Your task to perform on an android device: Empty the shopping cart on walmart.com. Add "razer blade" to the cart on walmart.com, then select checkout. Image 0: 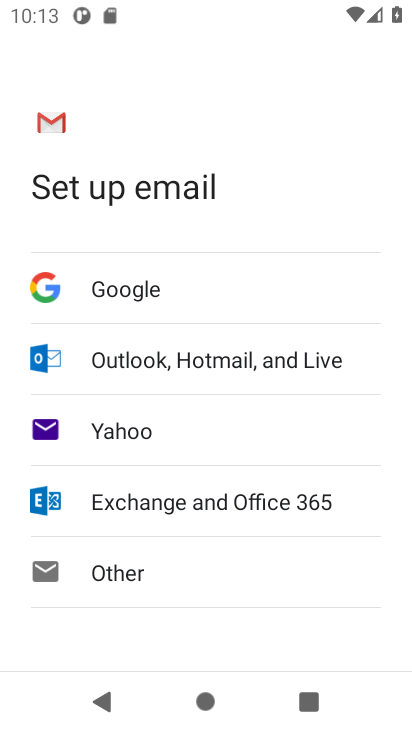
Step 0: press home button
Your task to perform on an android device: Empty the shopping cart on walmart.com. Add "razer blade" to the cart on walmart.com, then select checkout. Image 1: 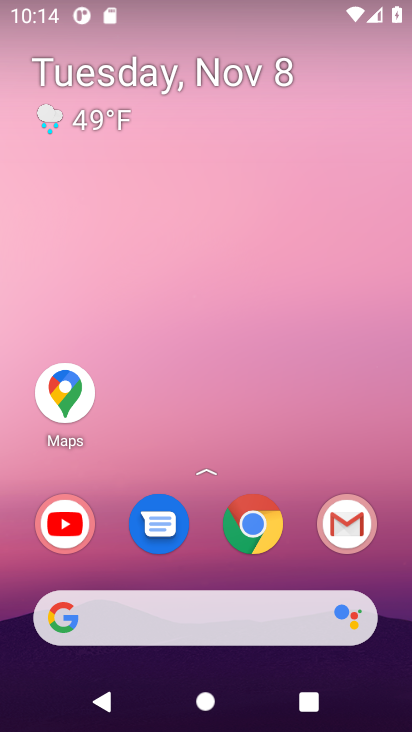
Step 1: click (250, 538)
Your task to perform on an android device: Empty the shopping cart on walmart.com. Add "razer blade" to the cart on walmart.com, then select checkout. Image 2: 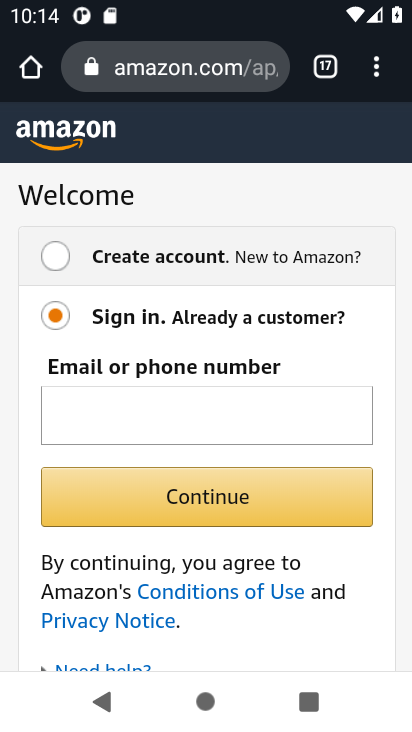
Step 2: click (195, 76)
Your task to perform on an android device: Empty the shopping cart on walmart.com. Add "razer blade" to the cart on walmart.com, then select checkout. Image 3: 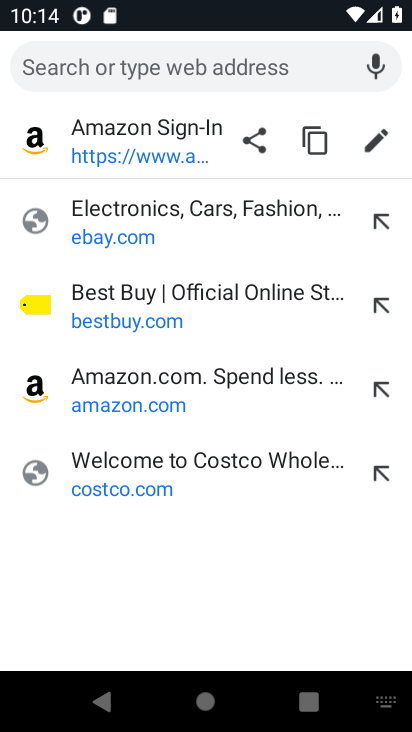
Step 3: type "walmart.com"
Your task to perform on an android device: Empty the shopping cart on walmart.com. Add "razer blade" to the cart on walmart.com, then select checkout. Image 4: 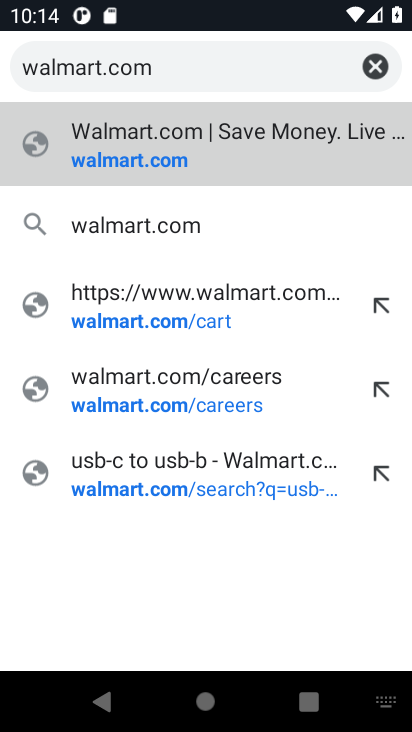
Step 4: click (190, 178)
Your task to perform on an android device: Empty the shopping cart on walmart.com. Add "razer blade" to the cart on walmart.com, then select checkout. Image 5: 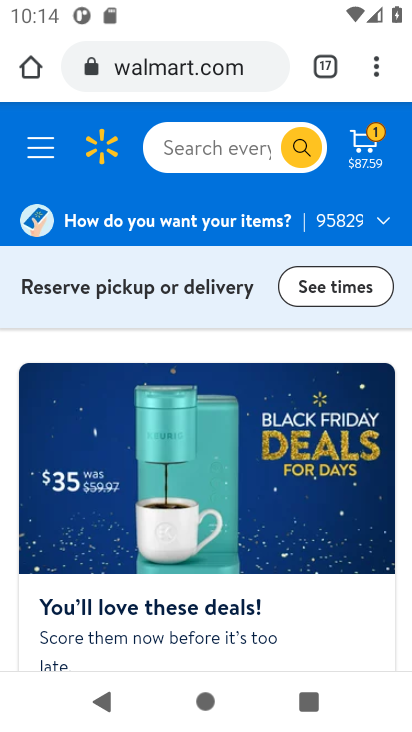
Step 5: click (368, 151)
Your task to perform on an android device: Empty the shopping cart on walmart.com. Add "razer blade" to the cart on walmart.com, then select checkout. Image 6: 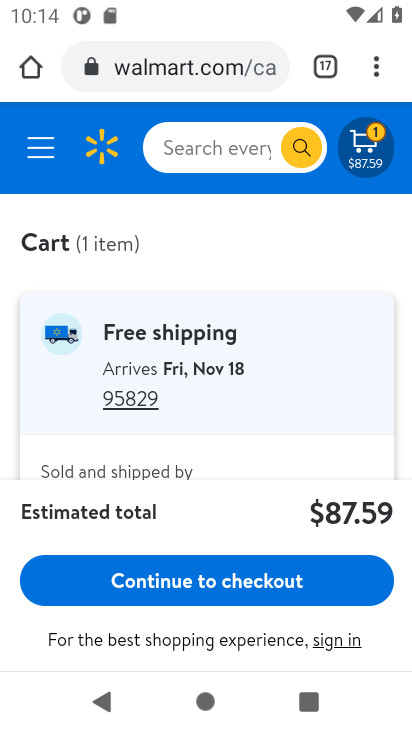
Step 6: drag from (245, 451) to (256, 143)
Your task to perform on an android device: Empty the shopping cart on walmart.com. Add "razer blade" to the cart on walmart.com, then select checkout. Image 7: 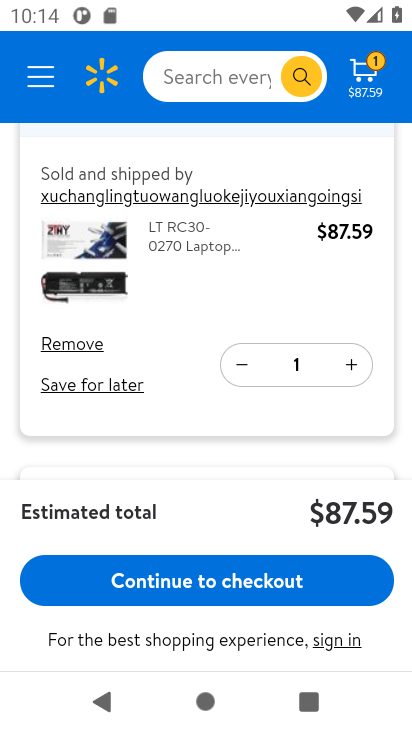
Step 7: click (81, 351)
Your task to perform on an android device: Empty the shopping cart on walmart.com. Add "razer blade" to the cart on walmart.com, then select checkout. Image 8: 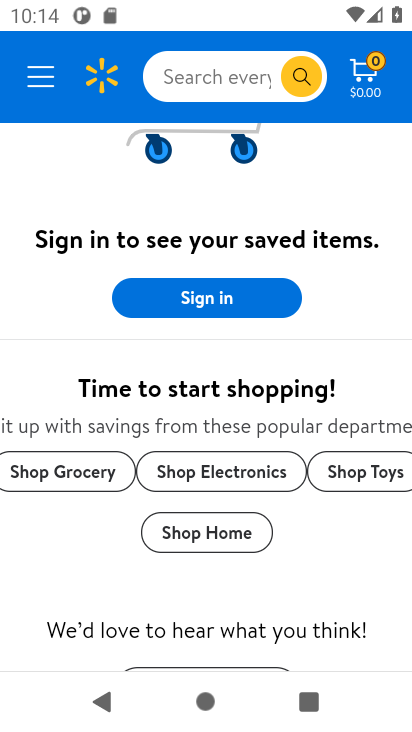
Step 8: click (230, 78)
Your task to perform on an android device: Empty the shopping cart on walmart.com. Add "razer blade" to the cart on walmart.com, then select checkout. Image 9: 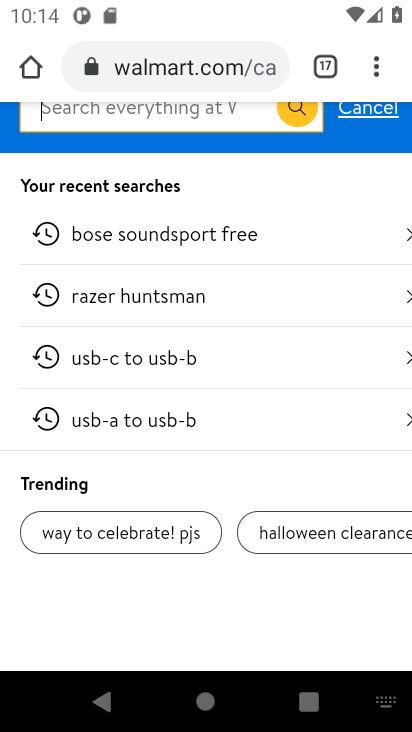
Step 9: type "razer blade"
Your task to perform on an android device: Empty the shopping cart on walmart.com. Add "razer blade" to the cart on walmart.com, then select checkout. Image 10: 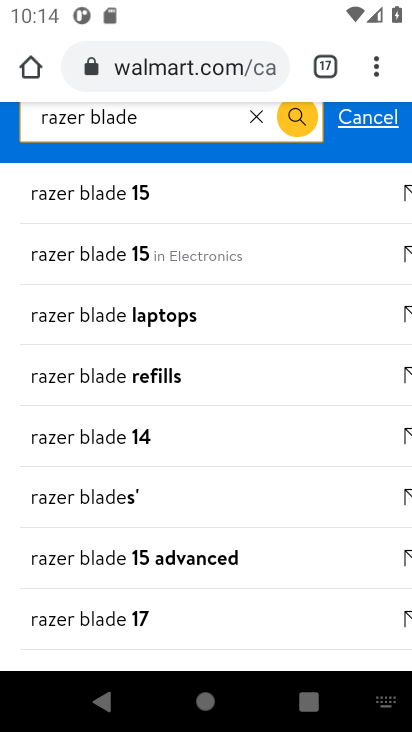
Step 10: click (305, 118)
Your task to perform on an android device: Empty the shopping cart on walmart.com. Add "razer blade" to the cart on walmart.com, then select checkout. Image 11: 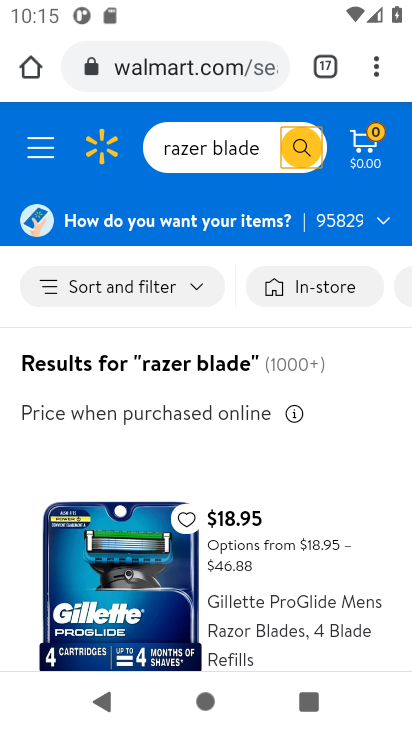
Step 11: drag from (156, 631) to (163, 443)
Your task to perform on an android device: Empty the shopping cart on walmart.com. Add "razer blade" to the cart on walmart.com, then select checkout. Image 12: 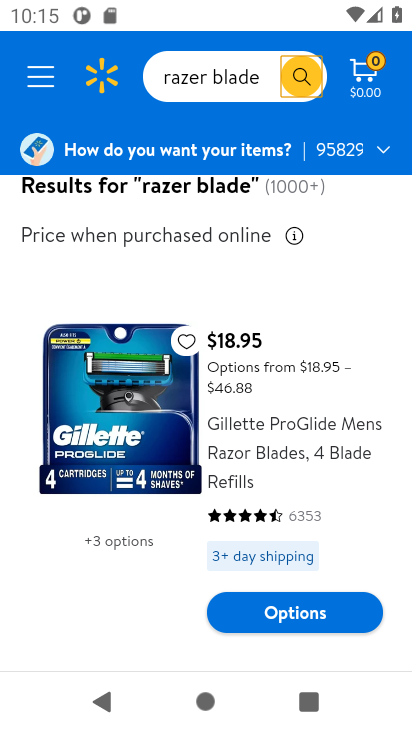
Step 12: drag from (156, 555) to (155, 261)
Your task to perform on an android device: Empty the shopping cart on walmart.com. Add "razer blade" to the cart on walmart.com, then select checkout. Image 13: 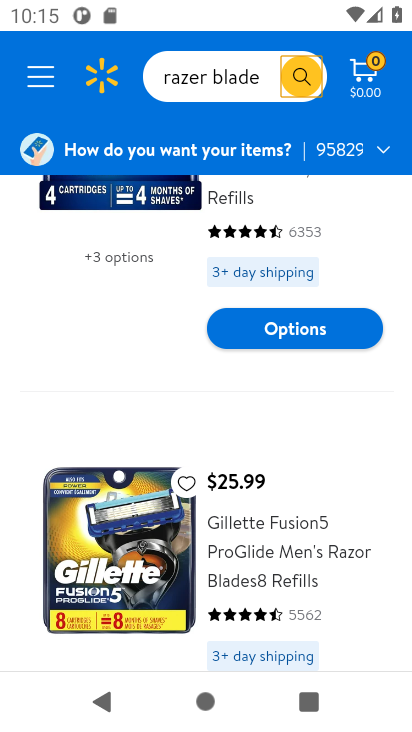
Step 13: drag from (151, 565) to (152, 309)
Your task to perform on an android device: Empty the shopping cart on walmart.com. Add "razer blade" to the cart on walmart.com, then select checkout. Image 14: 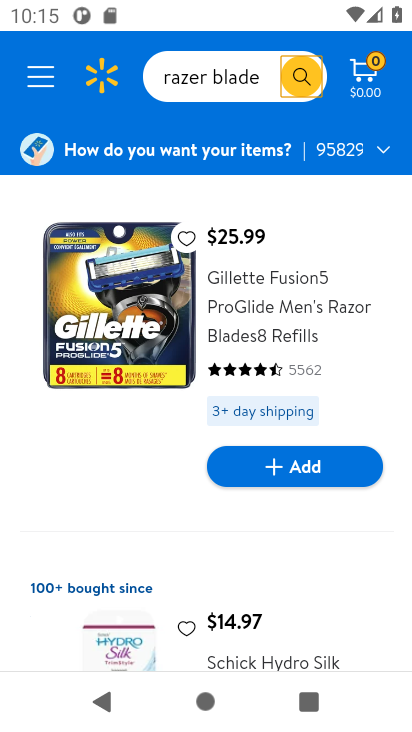
Step 14: drag from (137, 531) to (140, 248)
Your task to perform on an android device: Empty the shopping cart on walmart.com. Add "razer blade" to the cart on walmart.com, then select checkout. Image 15: 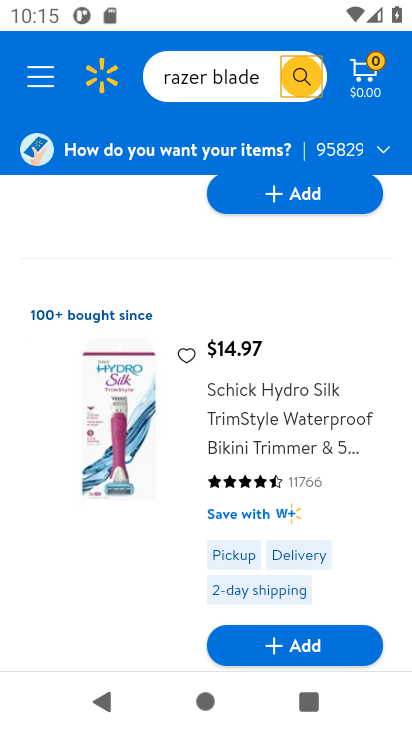
Step 15: drag from (134, 536) to (138, 204)
Your task to perform on an android device: Empty the shopping cart on walmart.com. Add "razer blade" to the cart on walmart.com, then select checkout. Image 16: 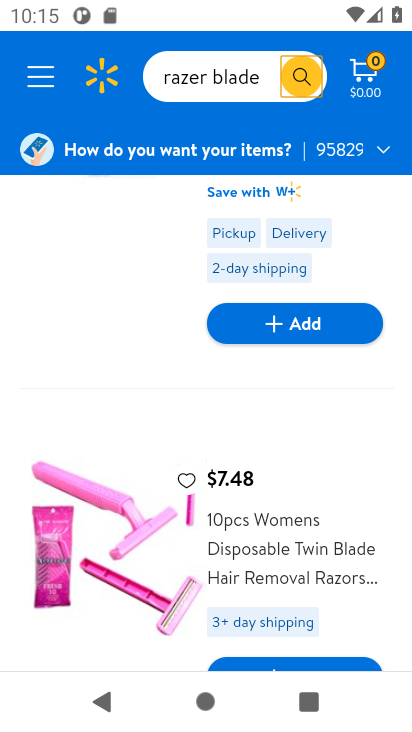
Step 16: drag from (120, 534) to (123, 274)
Your task to perform on an android device: Empty the shopping cart on walmart.com. Add "razer blade" to the cart on walmart.com, then select checkout. Image 17: 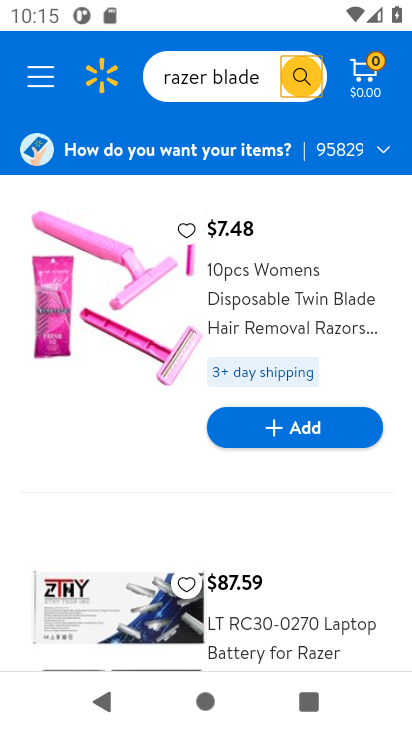
Step 17: drag from (104, 605) to (107, 363)
Your task to perform on an android device: Empty the shopping cart on walmart.com. Add "razer blade" to the cart on walmart.com, then select checkout. Image 18: 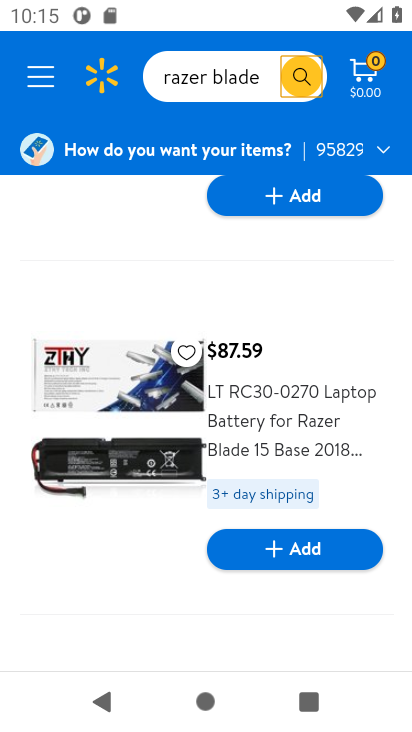
Step 18: click (309, 552)
Your task to perform on an android device: Empty the shopping cart on walmart.com. Add "razer blade" to the cart on walmart.com, then select checkout. Image 19: 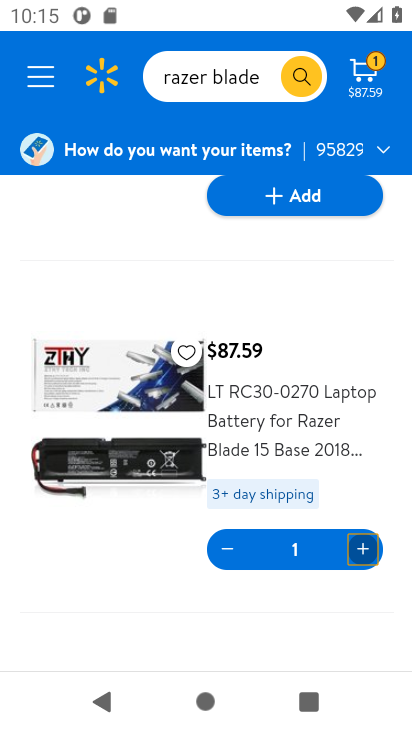
Step 19: click (362, 83)
Your task to perform on an android device: Empty the shopping cart on walmart.com. Add "razer blade" to the cart on walmart.com, then select checkout. Image 20: 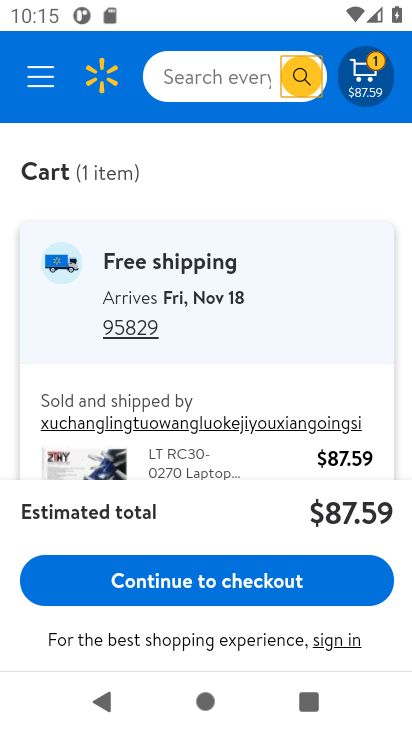
Step 20: click (232, 584)
Your task to perform on an android device: Empty the shopping cart on walmart.com. Add "razer blade" to the cart on walmart.com, then select checkout. Image 21: 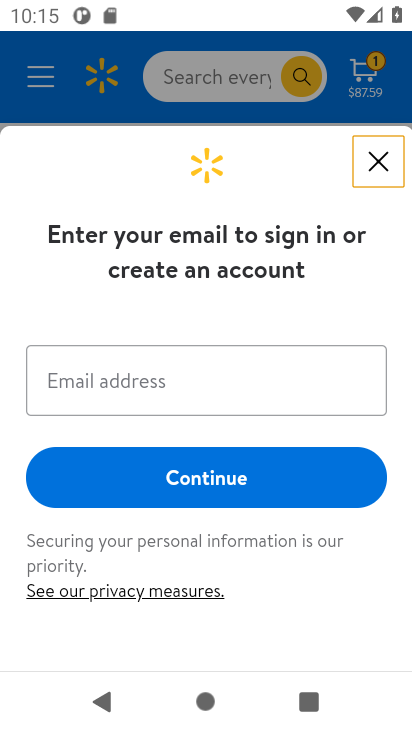
Step 21: task complete